Your task to perform on an android device: remove spam from my inbox in the gmail app Image 0: 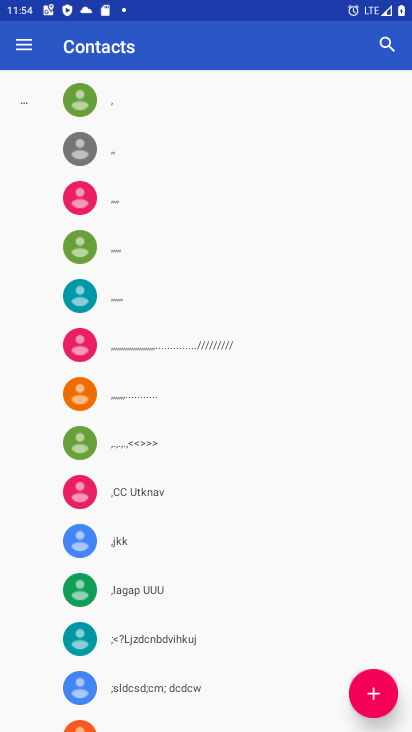
Step 0: press home button
Your task to perform on an android device: remove spam from my inbox in the gmail app Image 1: 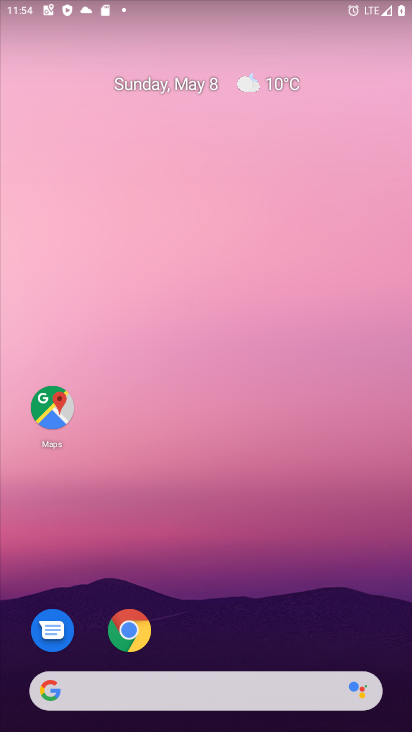
Step 1: drag from (330, 604) to (241, 50)
Your task to perform on an android device: remove spam from my inbox in the gmail app Image 2: 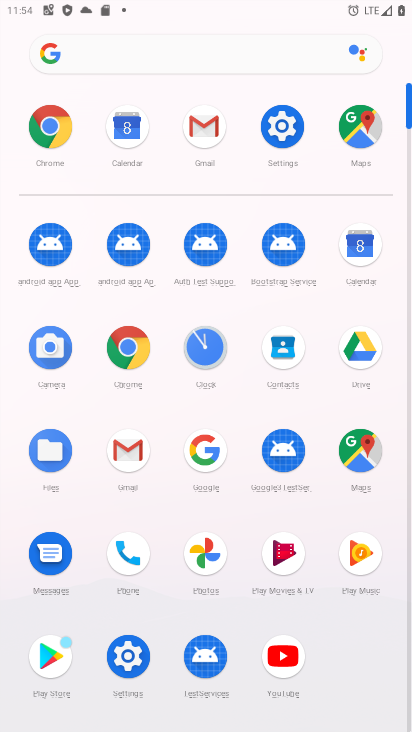
Step 2: click (137, 458)
Your task to perform on an android device: remove spam from my inbox in the gmail app Image 3: 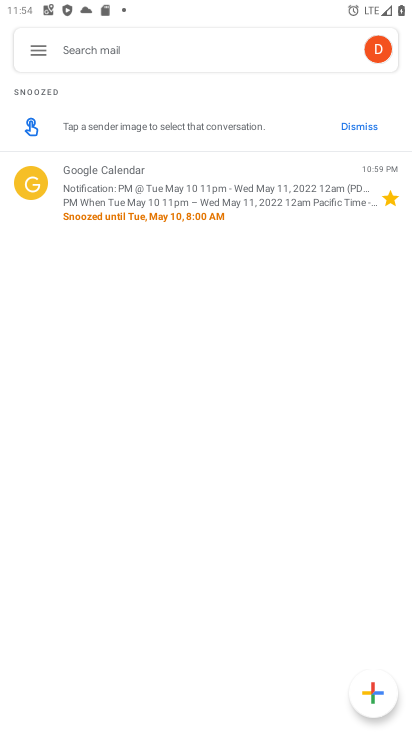
Step 3: click (35, 62)
Your task to perform on an android device: remove spam from my inbox in the gmail app Image 4: 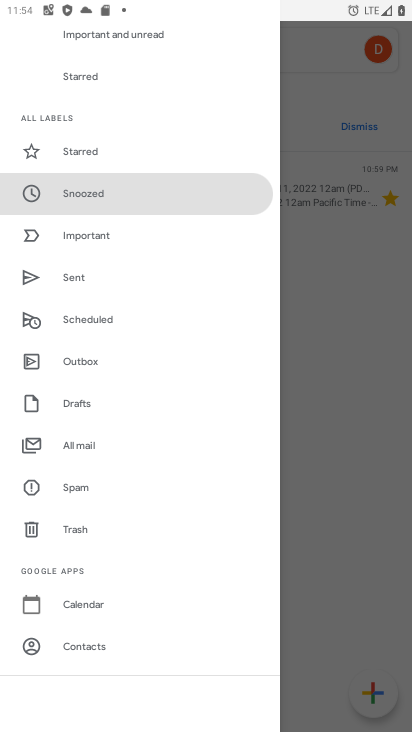
Step 4: click (88, 494)
Your task to perform on an android device: remove spam from my inbox in the gmail app Image 5: 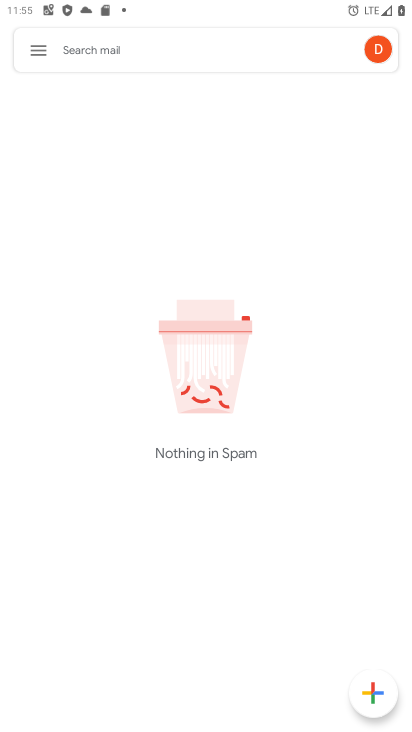
Step 5: task complete